Your task to perform on an android device: turn on notifications settings in the gmail app Image 0: 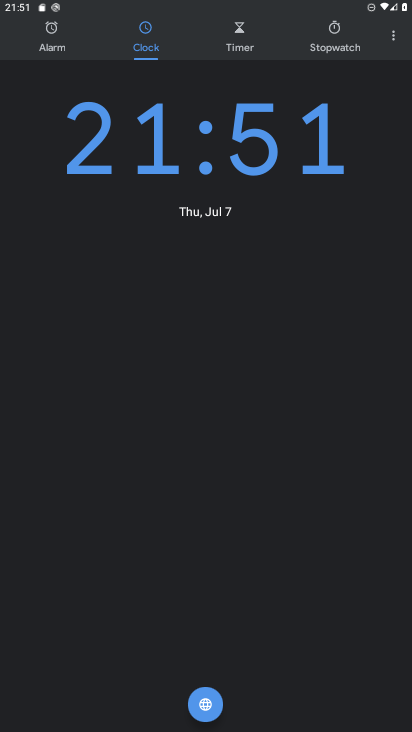
Step 0: drag from (266, 529) to (241, 174)
Your task to perform on an android device: turn on notifications settings in the gmail app Image 1: 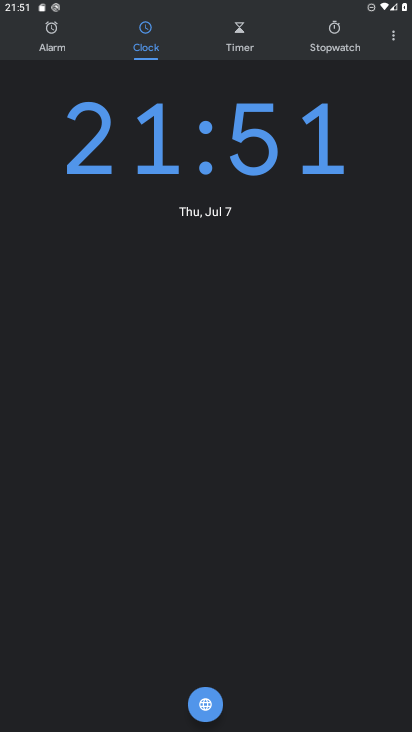
Step 1: press home button
Your task to perform on an android device: turn on notifications settings in the gmail app Image 2: 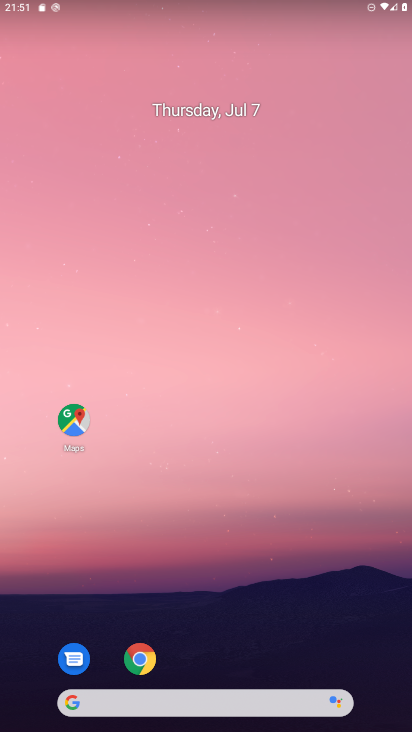
Step 2: drag from (249, 572) to (205, 140)
Your task to perform on an android device: turn on notifications settings in the gmail app Image 3: 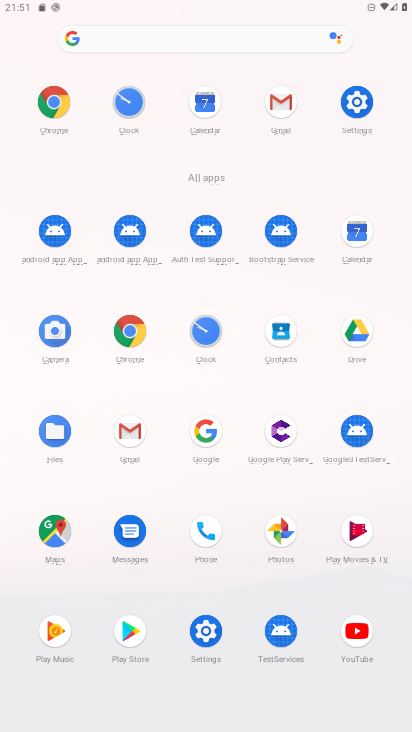
Step 3: click (128, 434)
Your task to perform on an android device: turn on notifications settings in the gmail app Image 4: 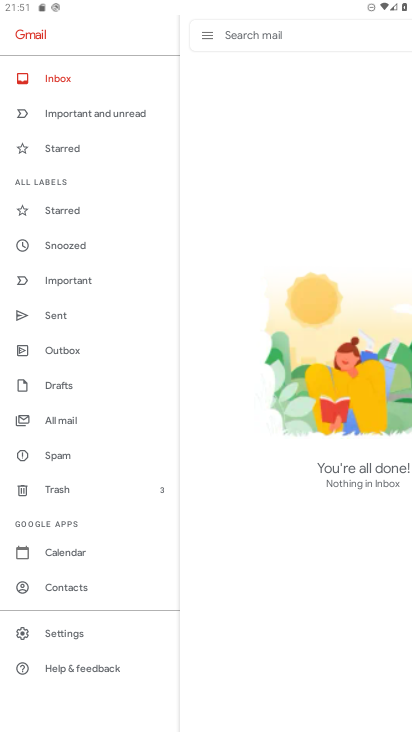
Step 4: click (69, 632)
Your task to perform on an android device: turn on notifications settings in the gmail app Image 5: 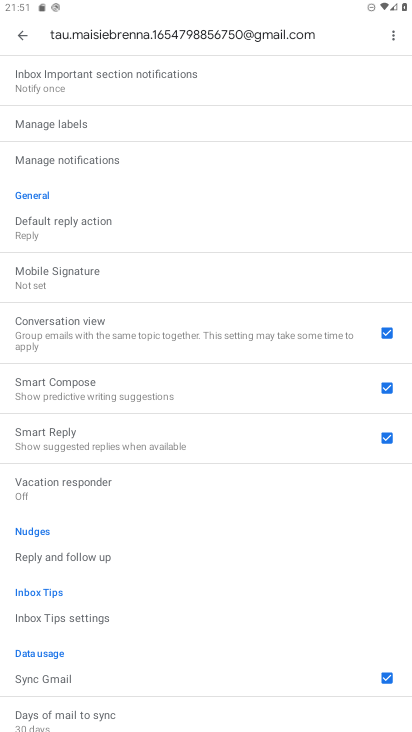
Step 5: click (80, 155)
Your task to perform on an android device: turn on notifications settings in the gmail app Image 6: 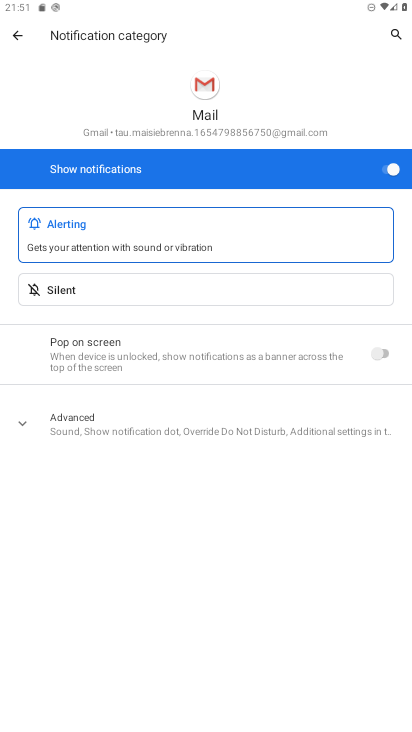
Step 6: task complete